Your task to perform on an android device: turn off location Image 0: 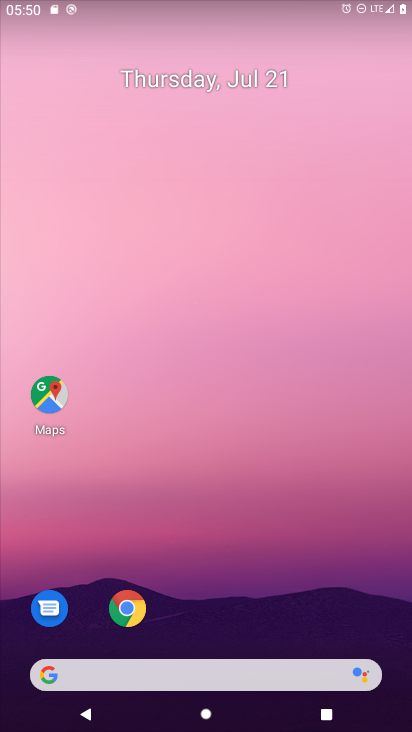
Step 0: drag from (252, 646) to (316, 117)
Your task to perform on an android device: turn off location Image 1: 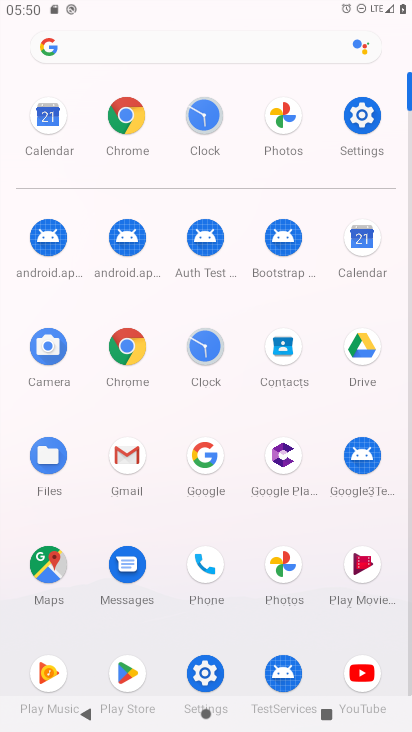
Step 1: click (352, 122)
Your task to perform on an android device: turn off location Image 2: 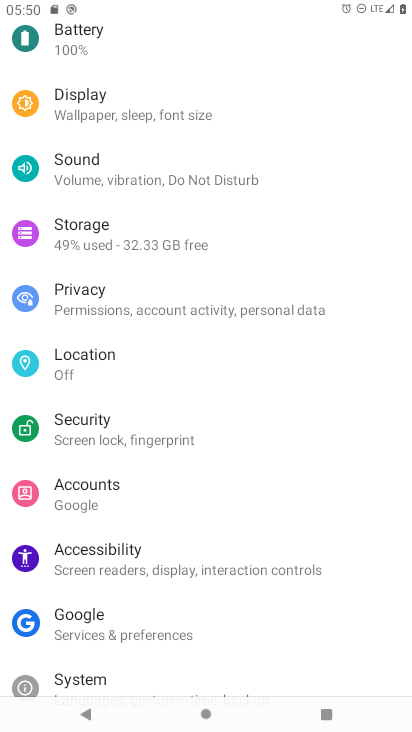
Step 2: drag from (172, 185) to (157, 627)
Your task to perform on an android device: turn off location Image 3: 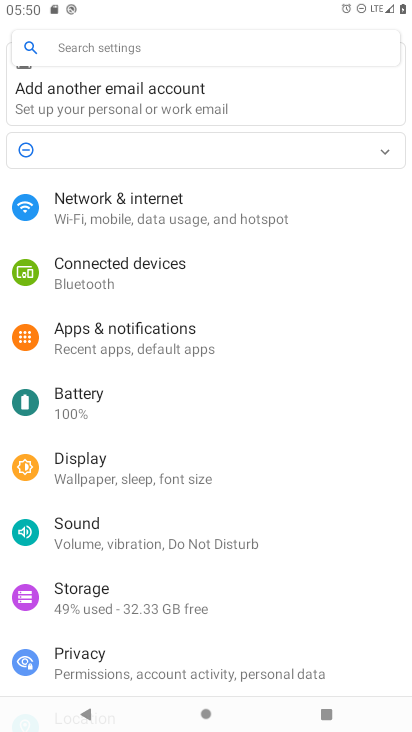
Step 3: drag from (185, 638) to (227, 289)
Your task to perform on an android device: turn off location Image 4: 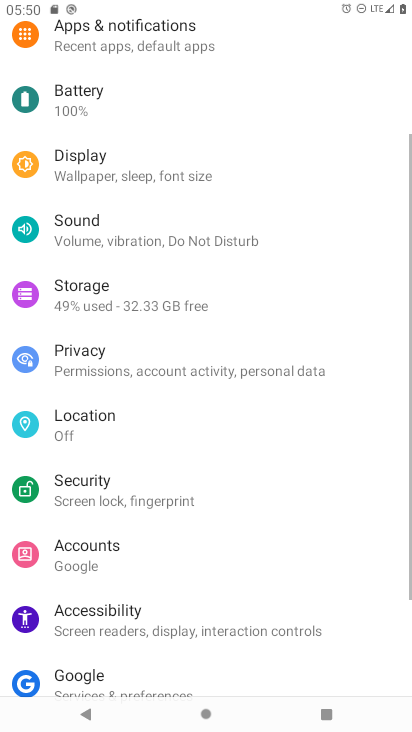
Step 4: click (227, 289)
Your task to perform on an android device: turn off location Image 5: 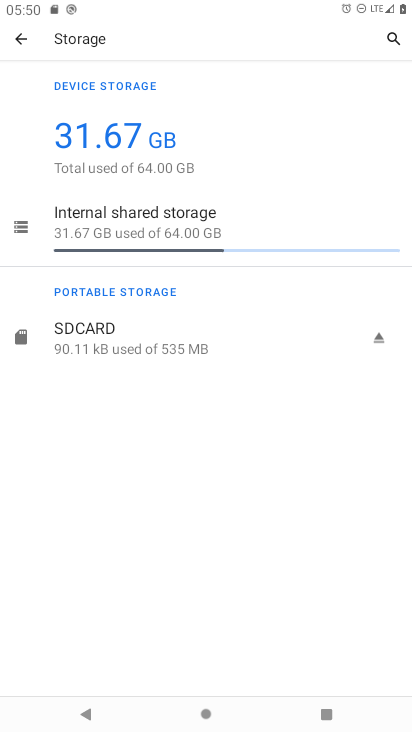
Step 5: click (122, 414)
Your task to perform on an android device: turn off location Image 6: 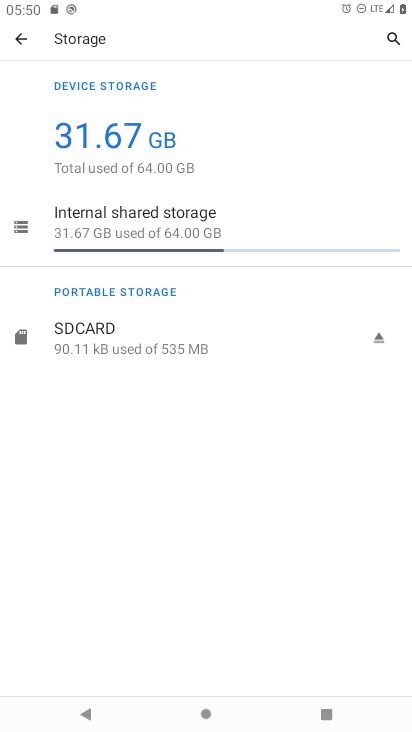
Step 6: press back button
Your task to perform on an android device: turn off location Image 7: 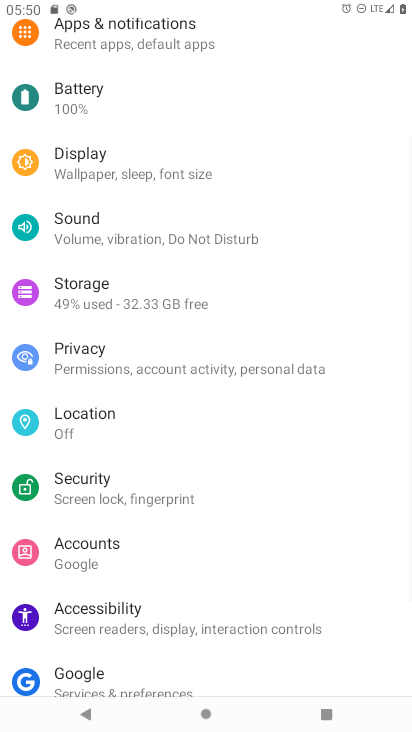
Step 7: click (122, 435)
Your task to perform on an android device: turn off location Image 8: 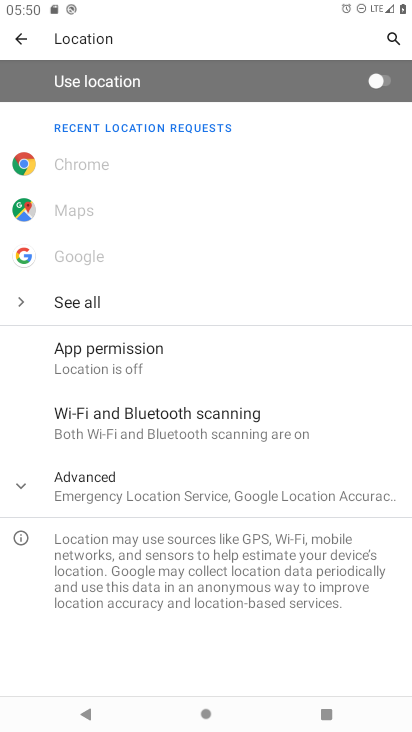
Step 8: task complete